Your task to perform on an android device: install app "The Home Depot" Image 0: 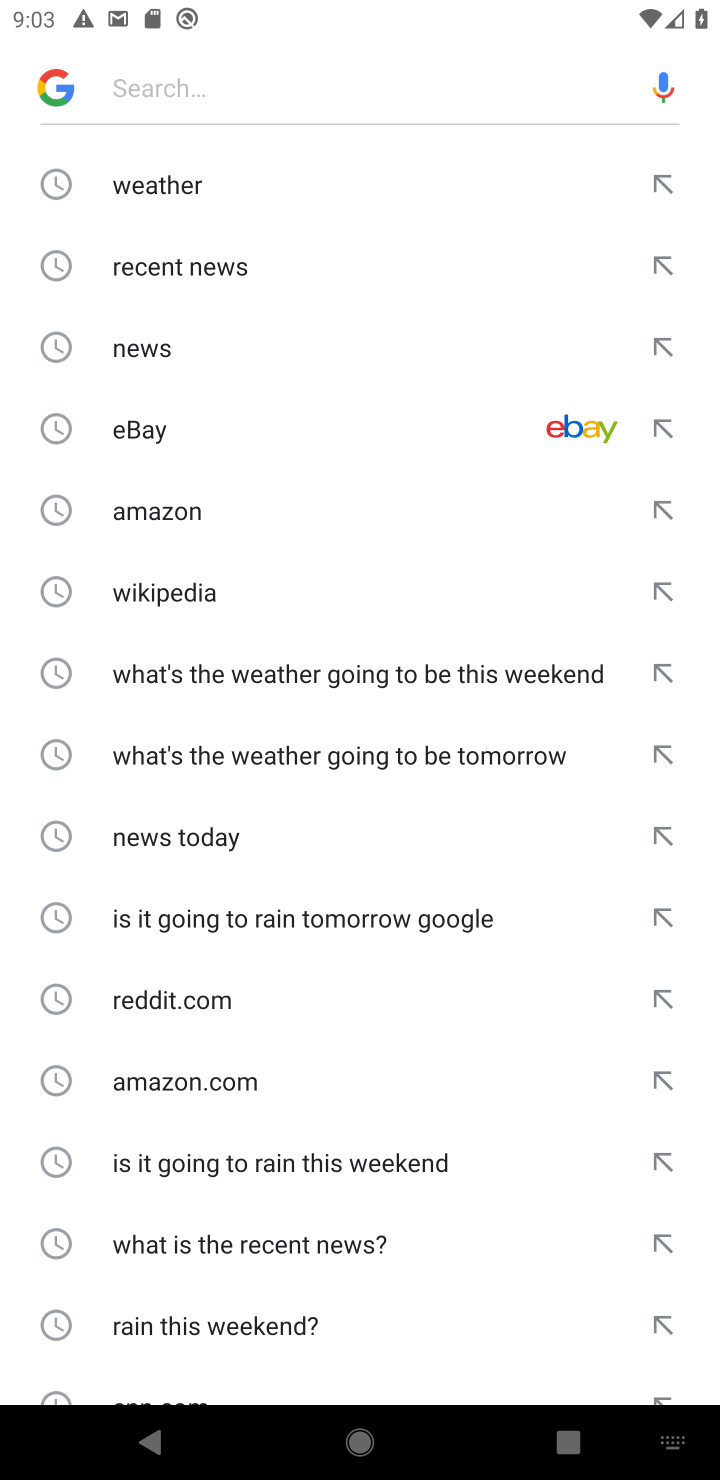
Step 0: press back button
Your task to perform on an android device: install app "The Home Depot" Image 1: 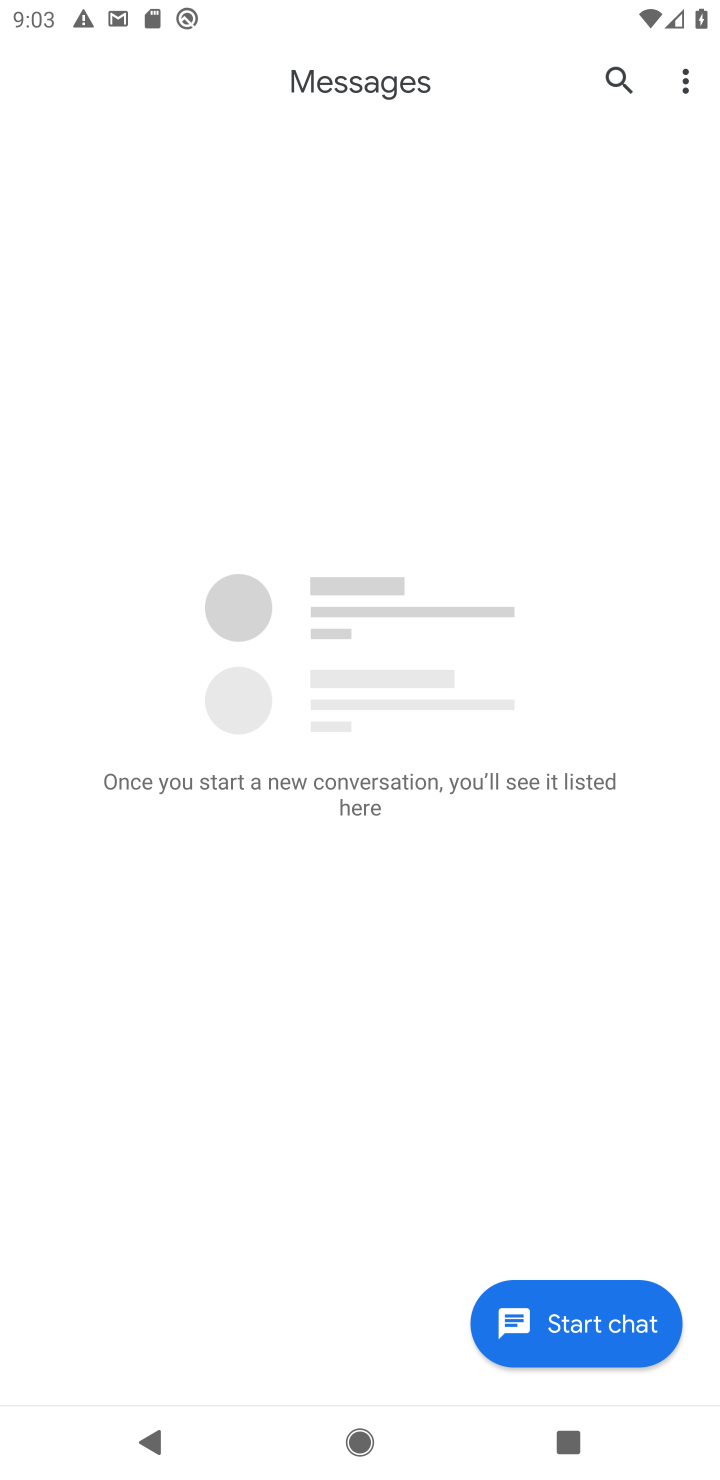
Step 1: press home button
Your task to perform on an android device: install app "The Home Depot" Image 2: 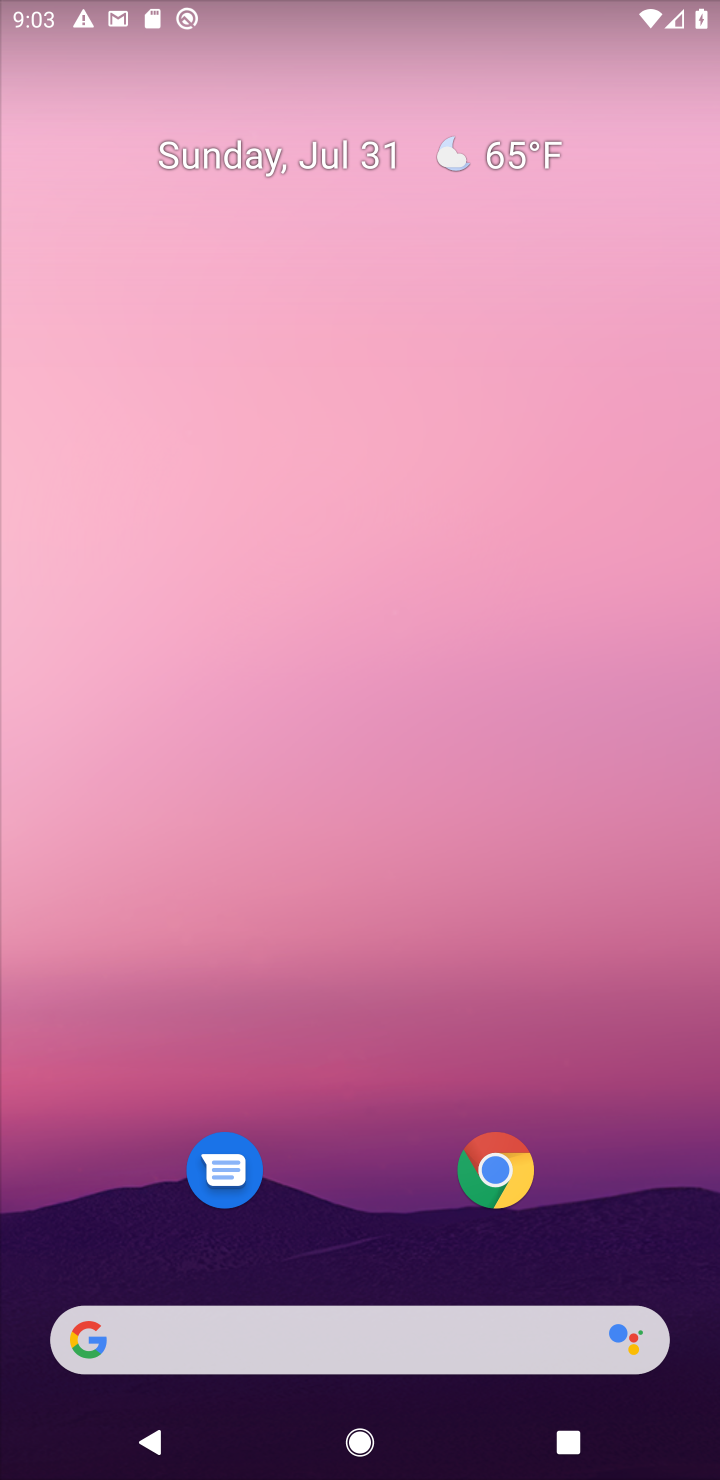
Step 2: drag from (314, 245) to (304, 177)
Your task to perform on an android device: install app "The Home Depot" Image 3: 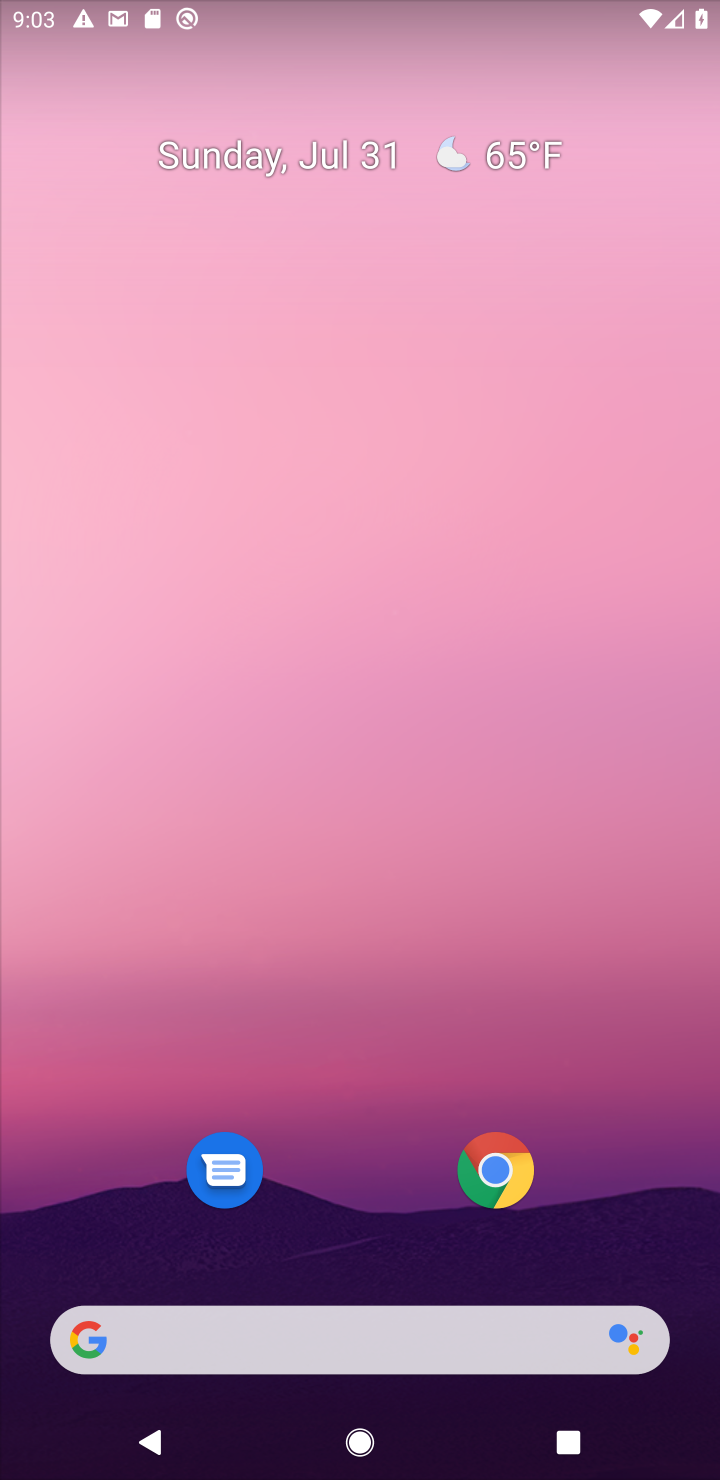
Step 3: drag from (340, 1228) to (259, 154)
Your task to perform on an android device: install app "The Home Depot" Image 4: 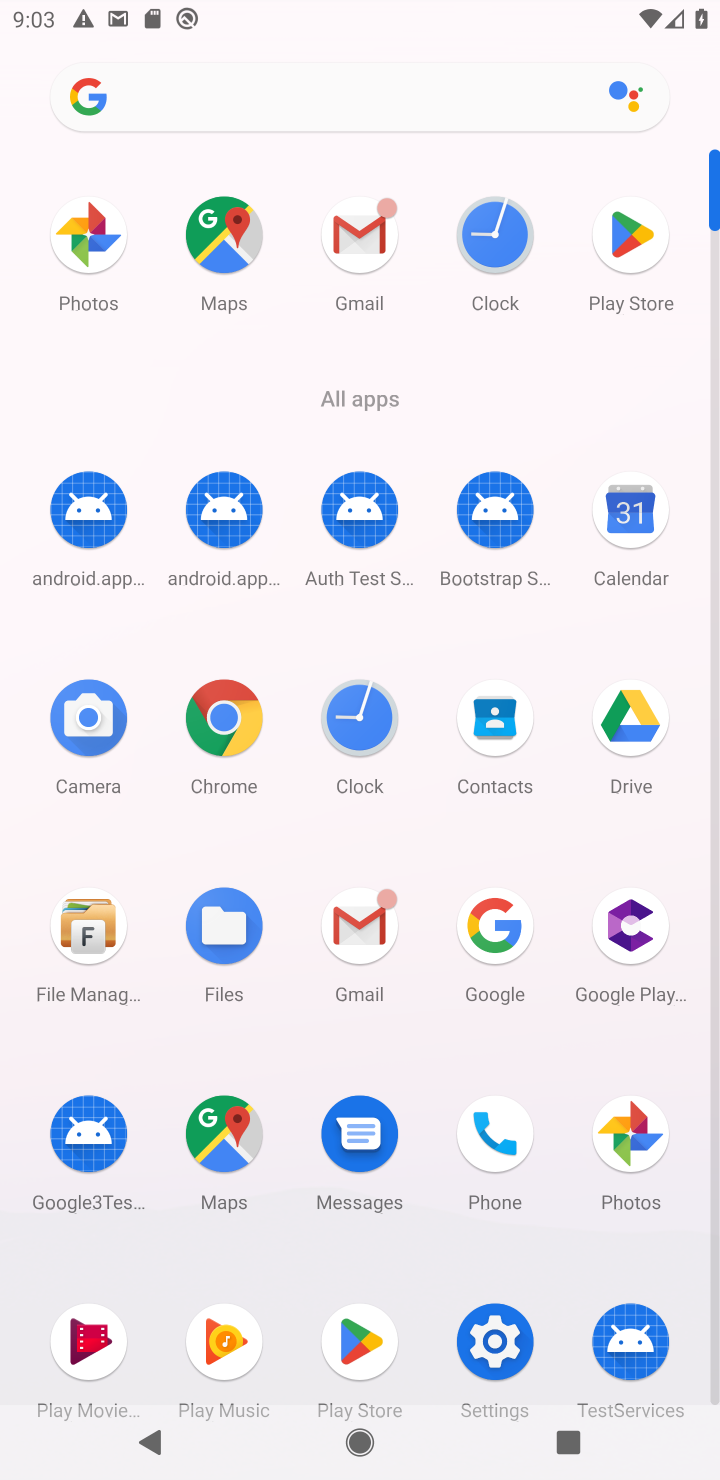
Step 4: click (365, 1331)
Your task to perform on an android device: install app "The Home Depot" Image 5: 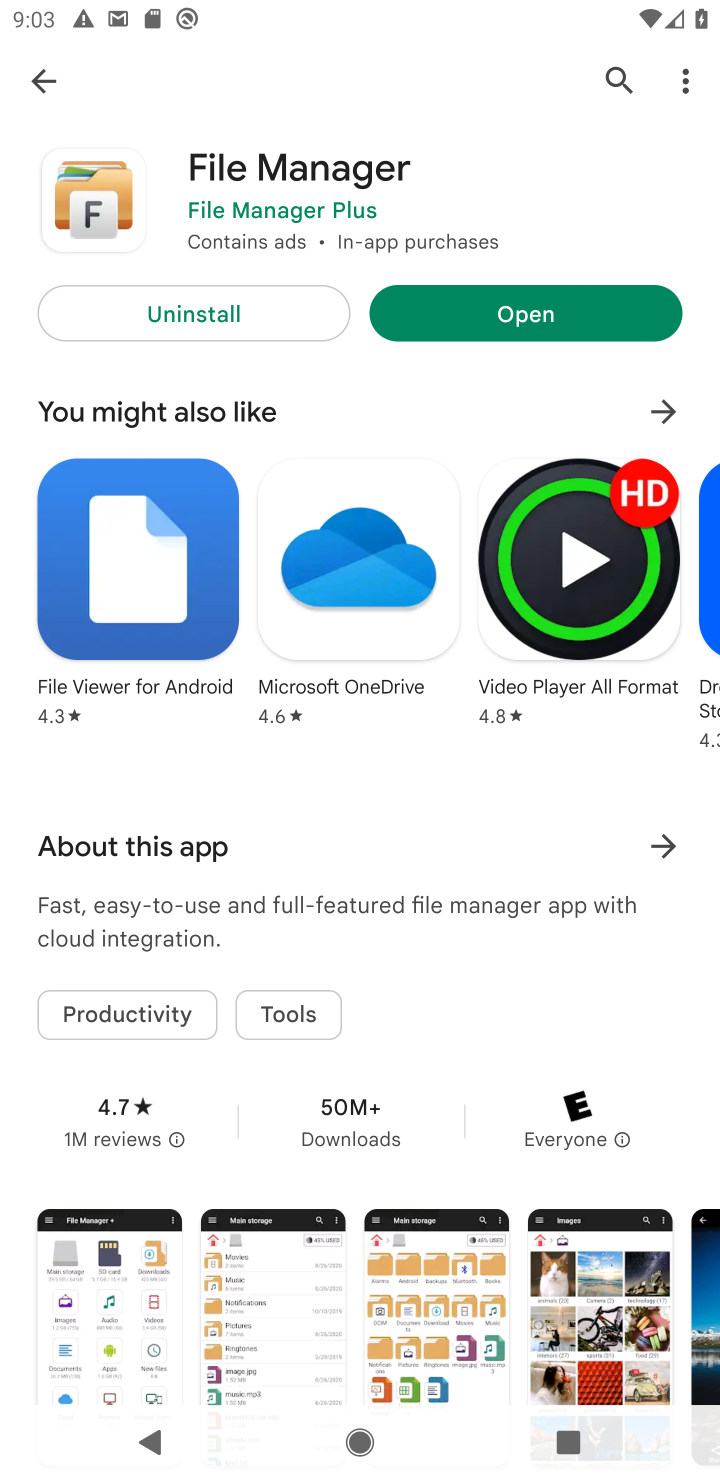
Step 5: click (35, 81)
Your task to perform on an android device: install app "The Home Depot" Image 6: 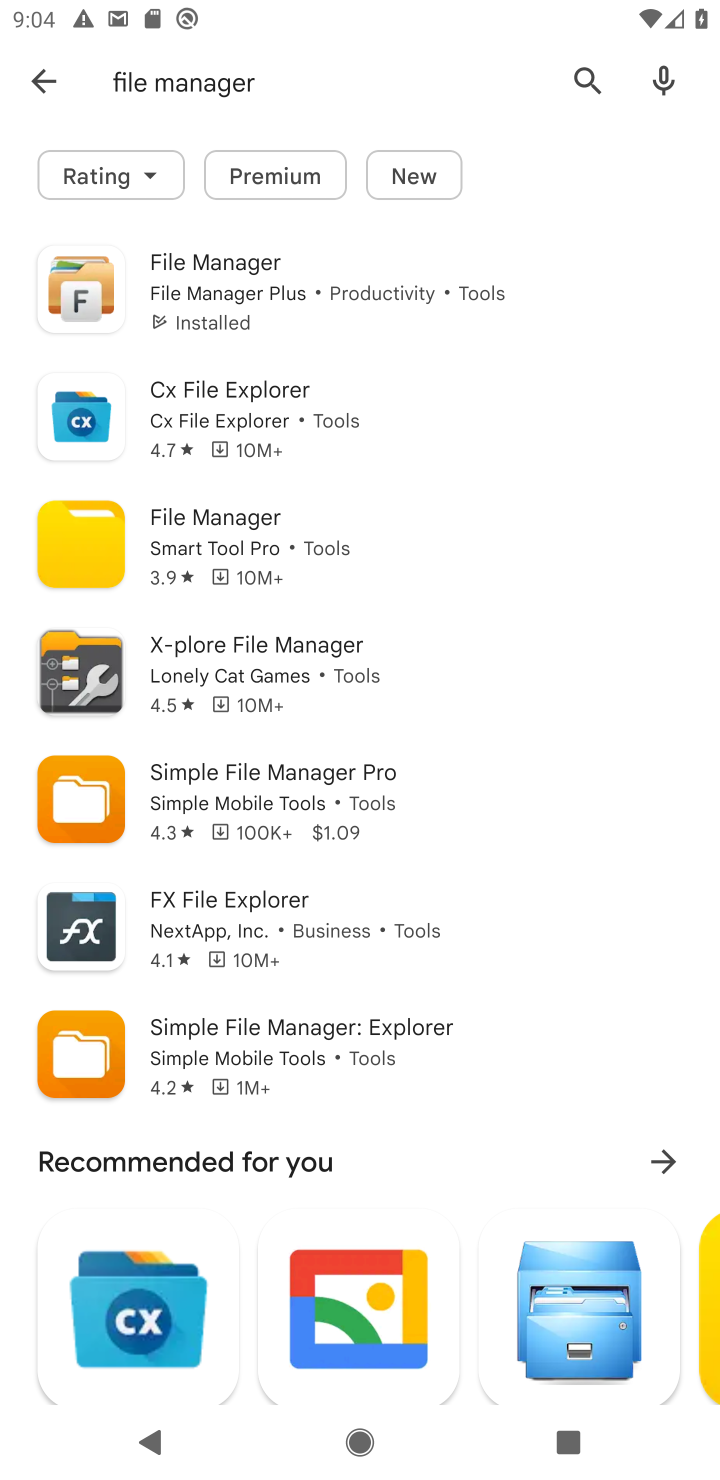
Step 6: click (585, 87)
Your task to perform on an android device: install app "The Home Depot" Image 7: 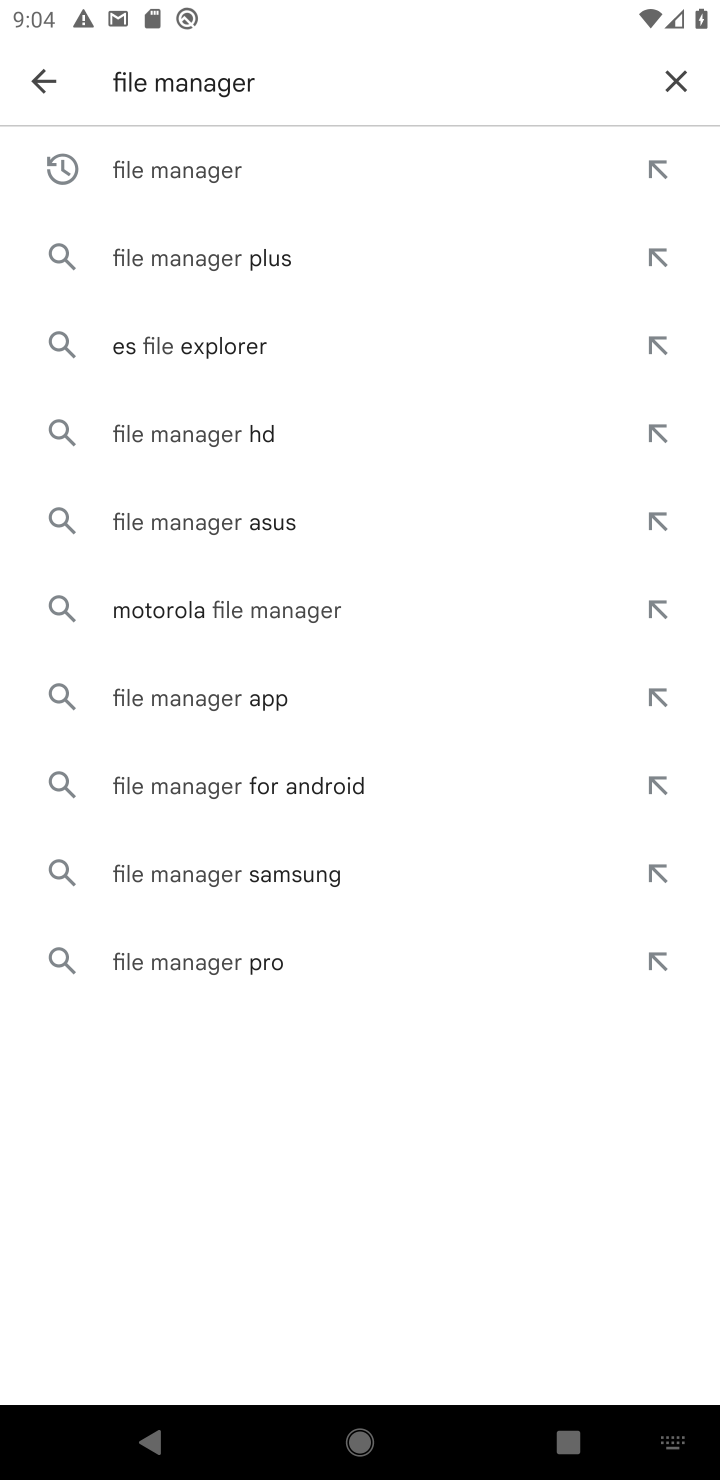
Step 7: click (671, 83)
Your task to perform on an android device: install app "The Home Depot" Image 8: 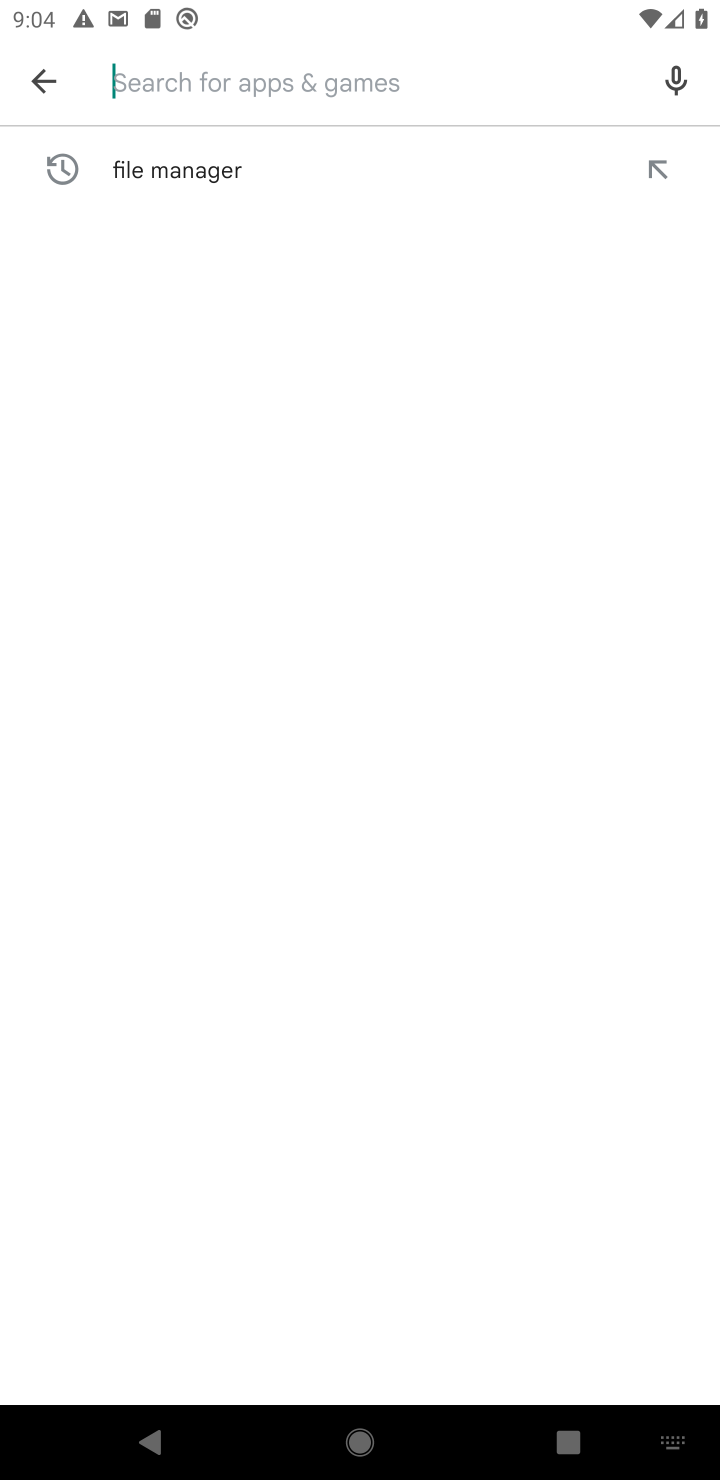
Step 8: type "The Home Depo"
Your task to perform on an android device: install app "The Home Depot" Image 9: 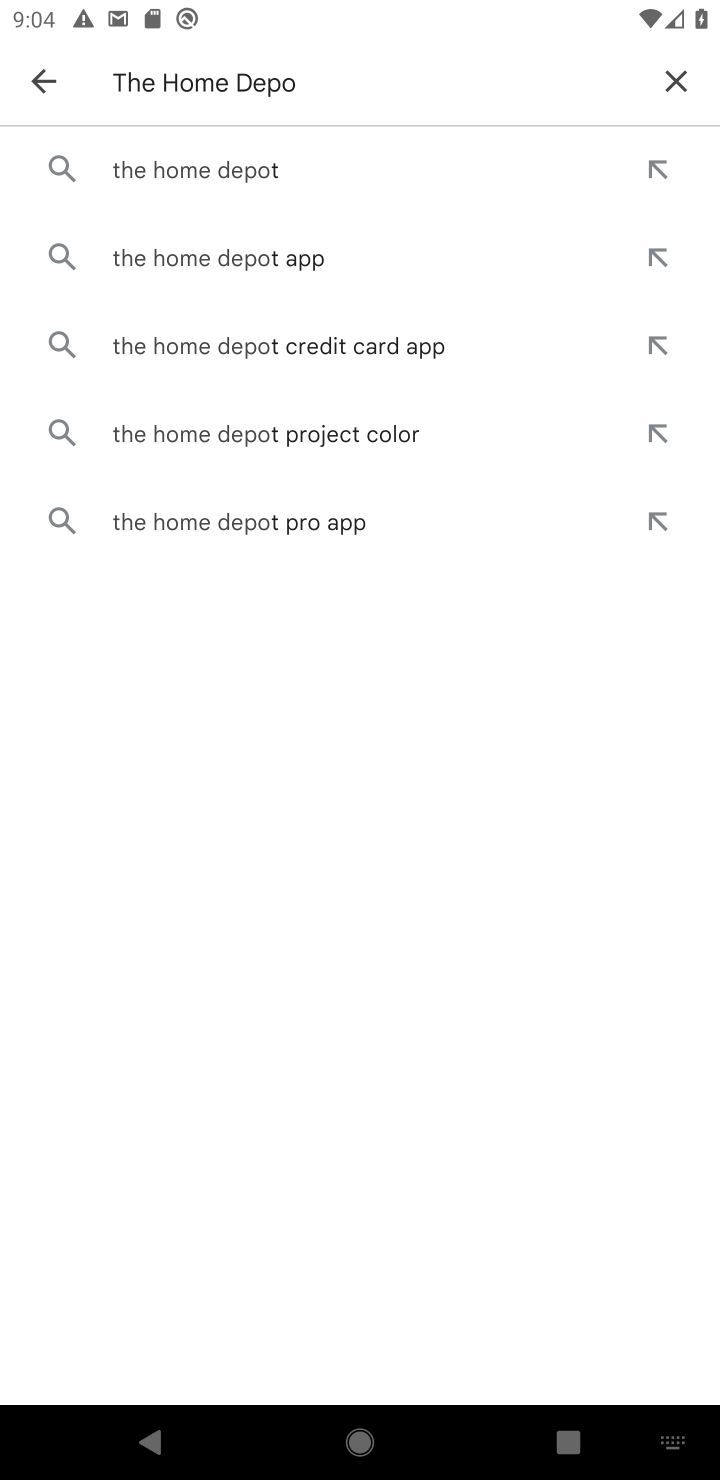
Step 9: click (233, 161)
Your task to perform on an android device: install app "The Home Depot" Image 10: 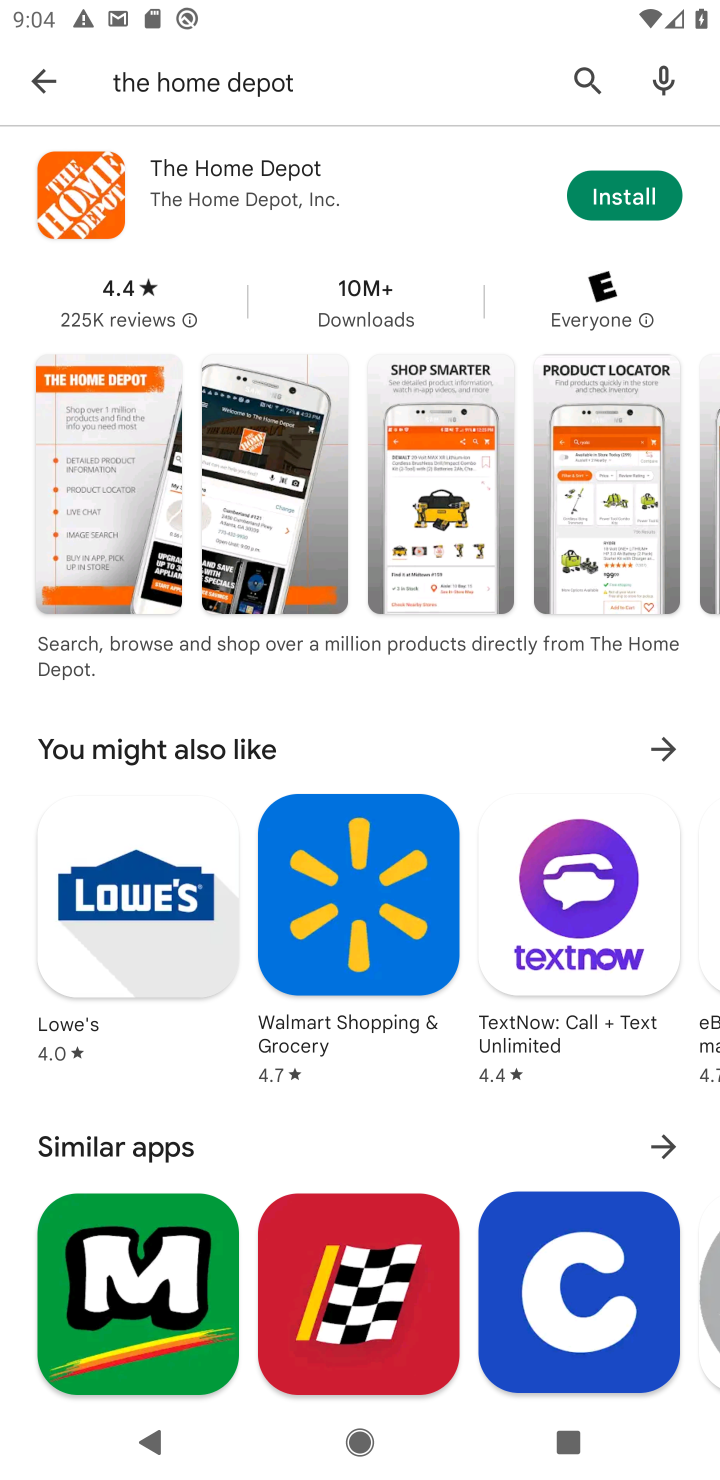
Step 10: click (582, 195)
Your task to perform on an android device: install app "The Home Depot" Image 11: 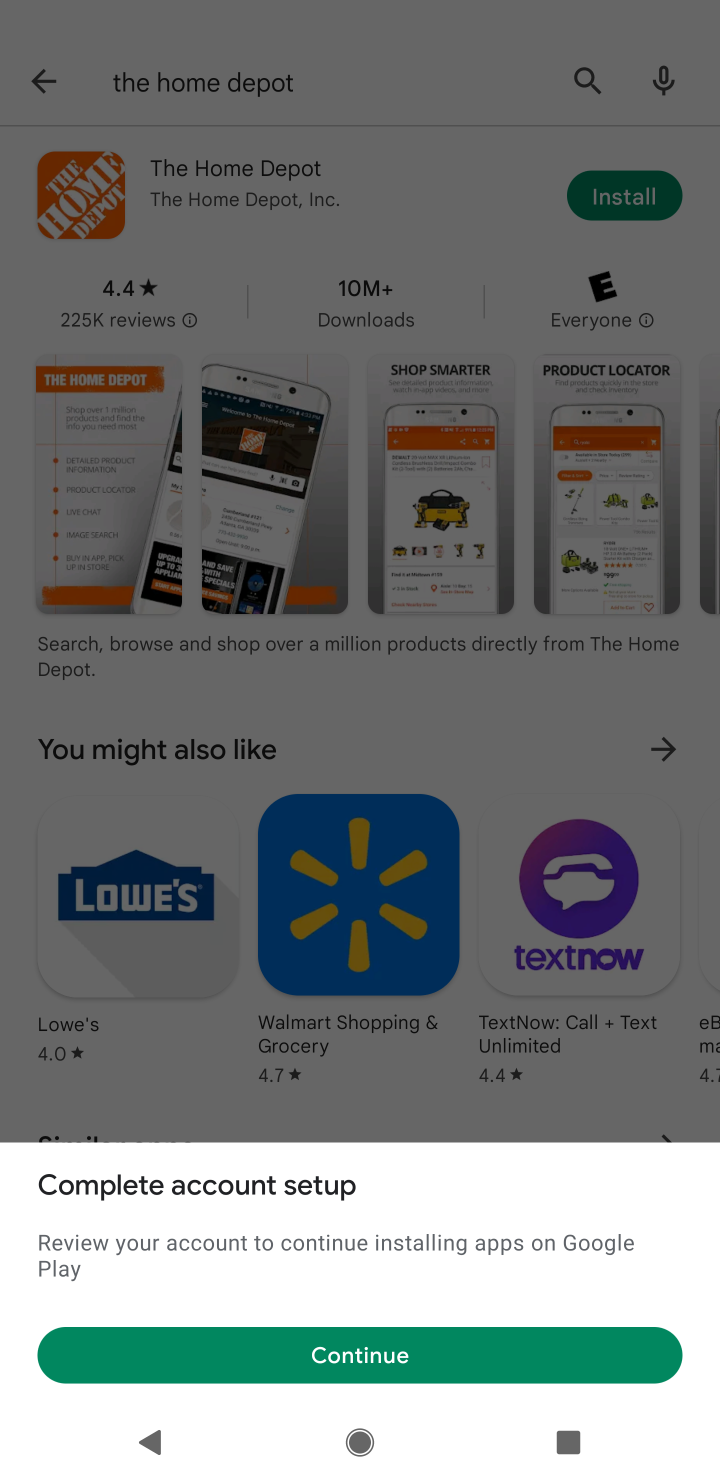
Step 11: click (246, 1333)
Your task to perform on an android device: install app "The Home Depot" Image 12: 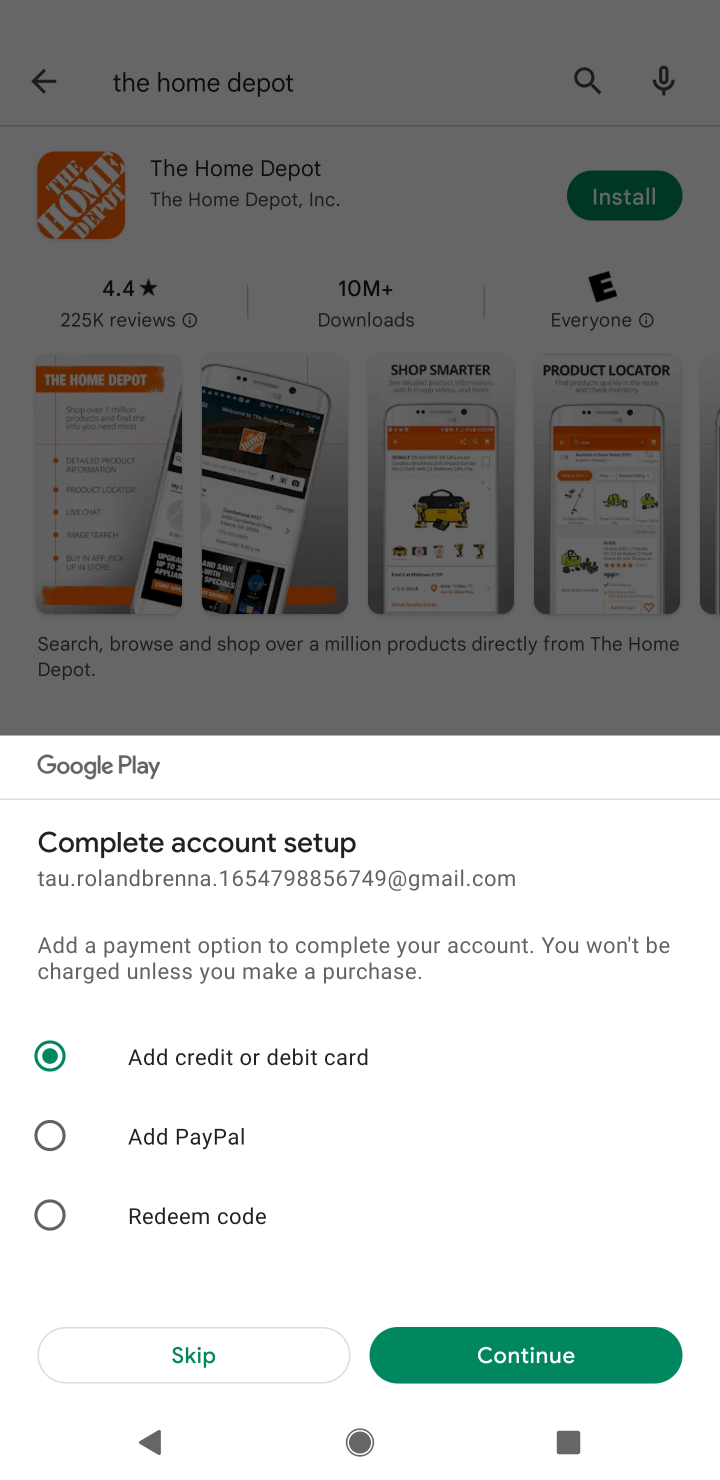
Step 12: click (235, 1343)
Your task to perform on an android device: install app "The Home Depot" Image 13: 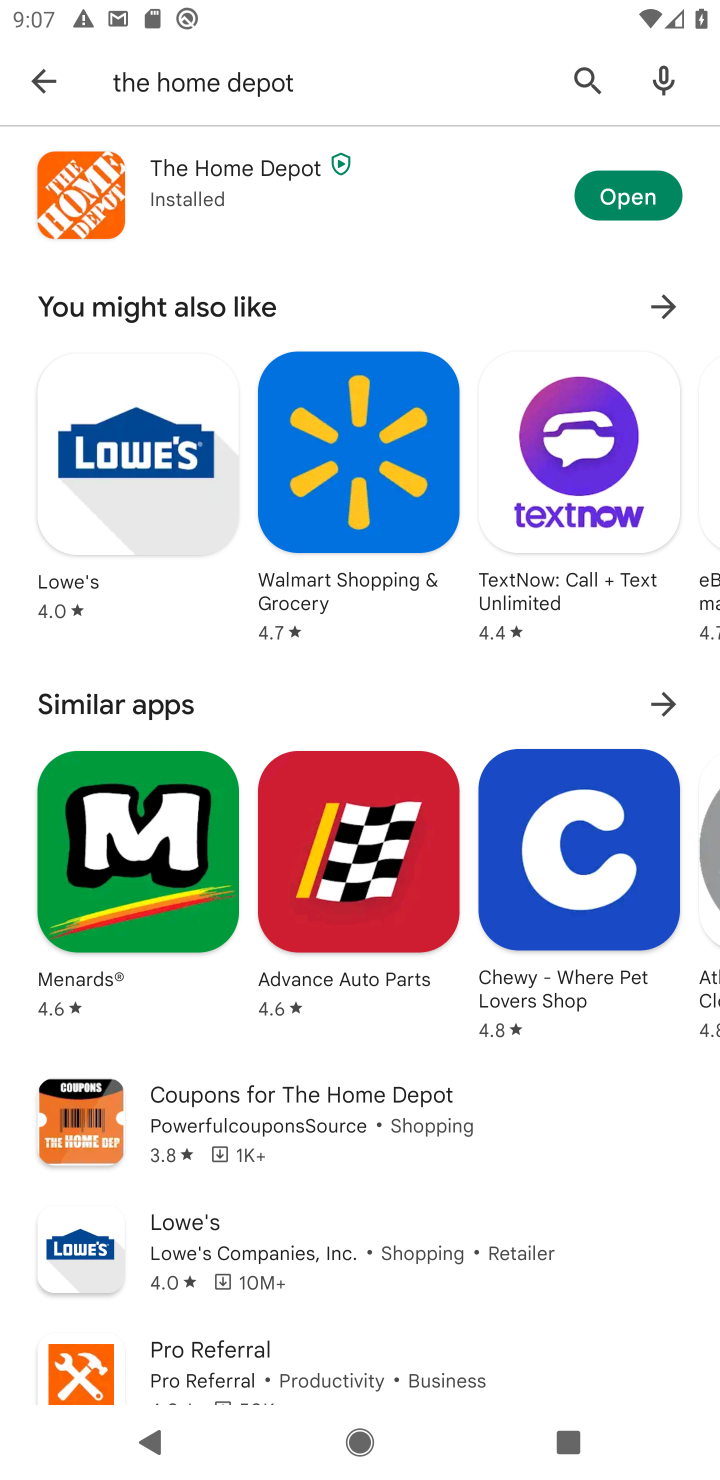
Step 13: click (603, 160)
Your task to perform on an android device: install app "The Home Depot" Image 14: 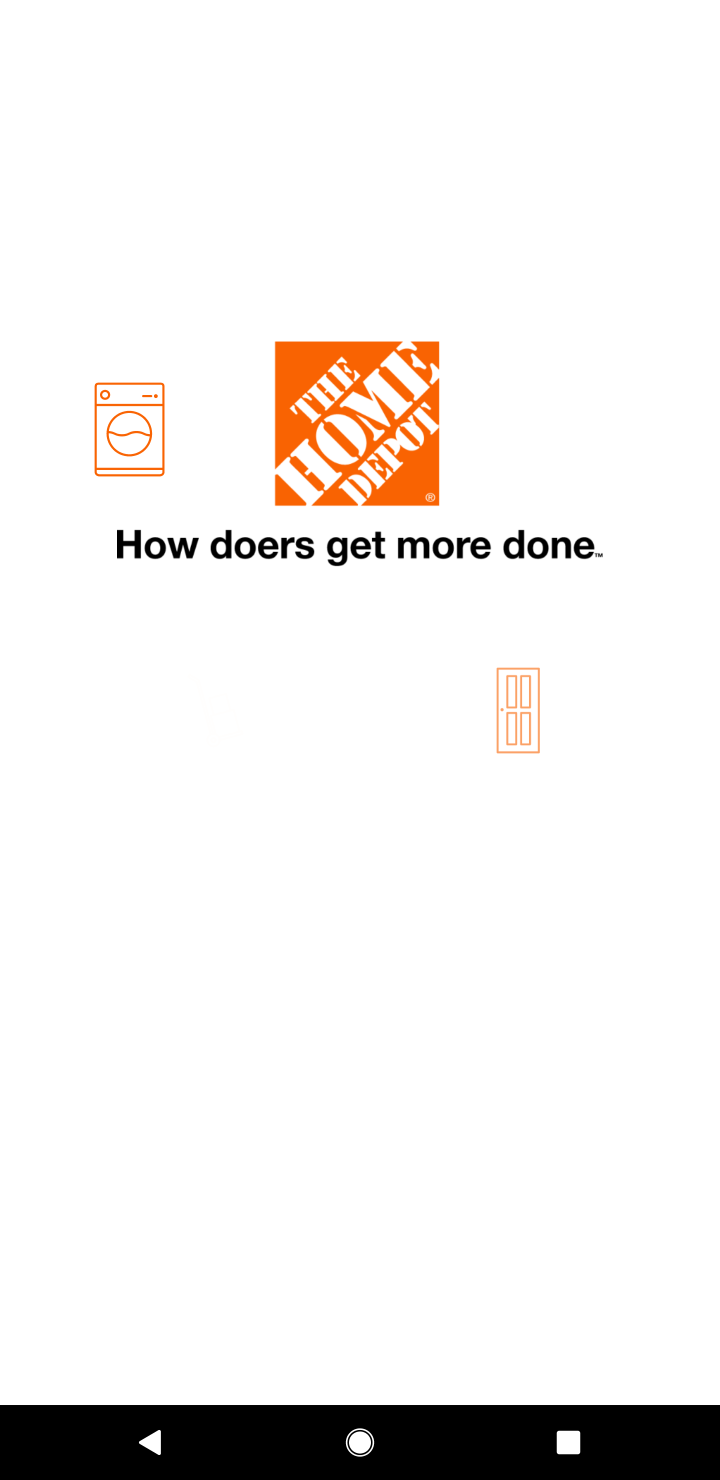
Step 14: click (603, 160)
Your task to perform on an android device: install app "The Home Depot" Image 15: 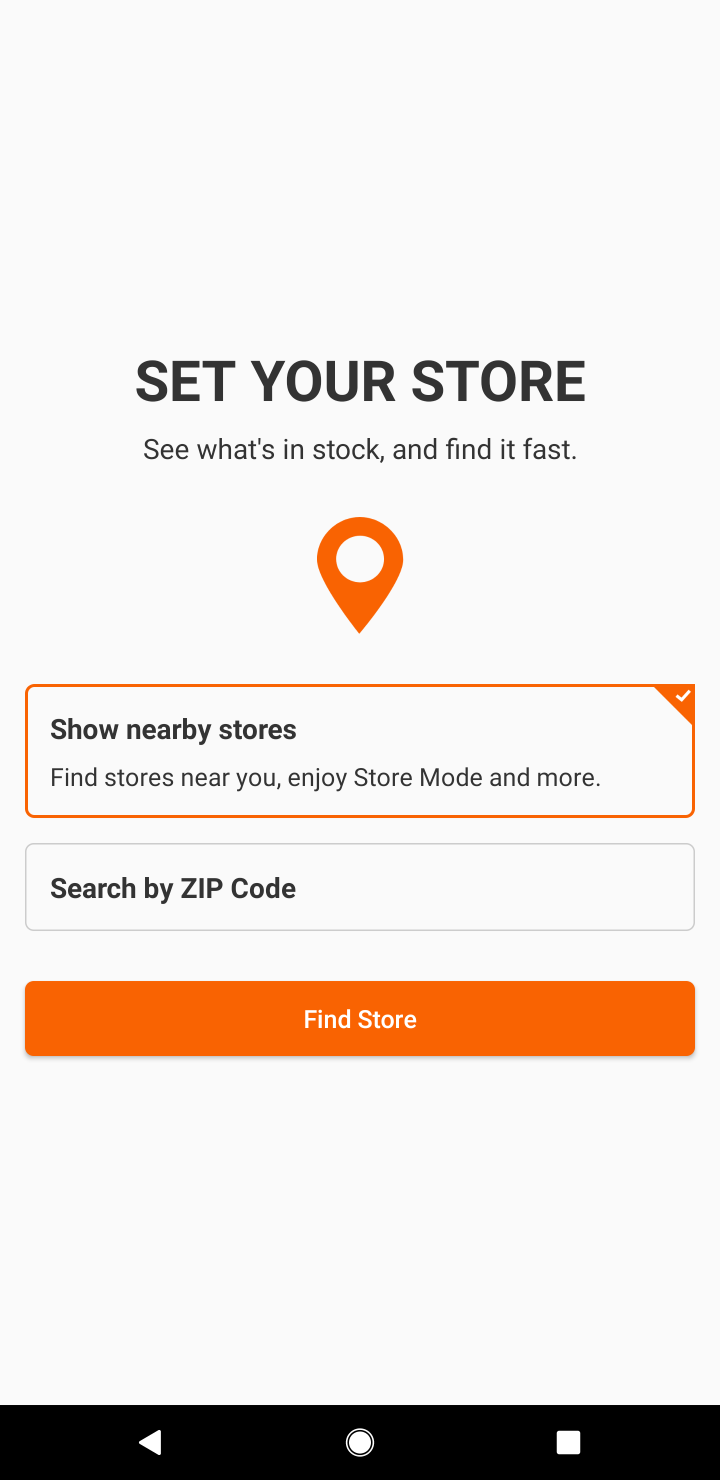
Step 15: task complete